Your task to perform on an android device: toggle airplane mode Image 0: 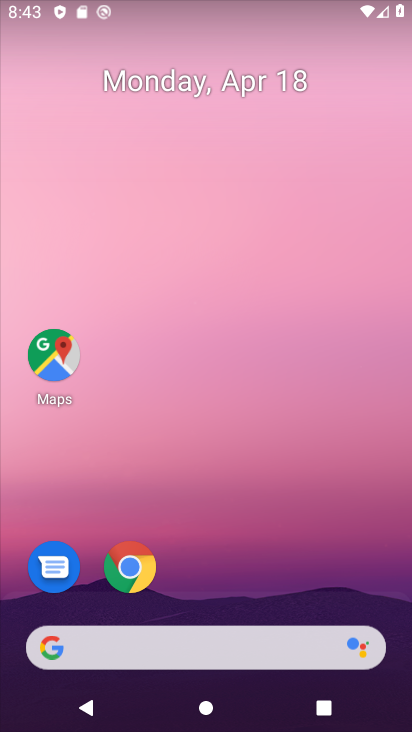
Step 0: drag from (210, 382) to (221, 47)
Your task to perform on an android device: toggle airplane mode Image 1: 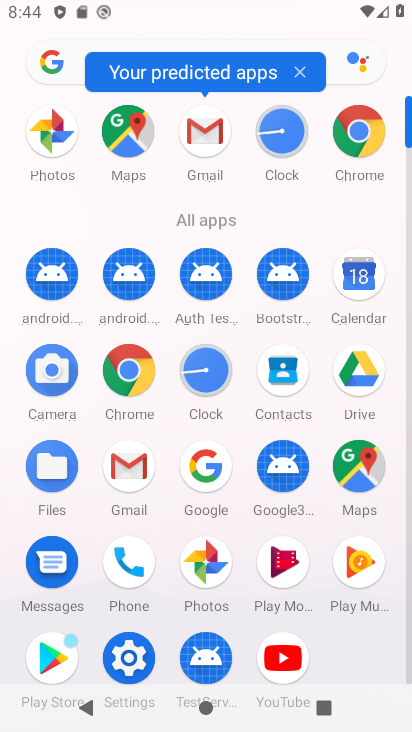
Step 1: click (123, 659)
Your task to perform on an android device: toggle airplane mode Image 2: 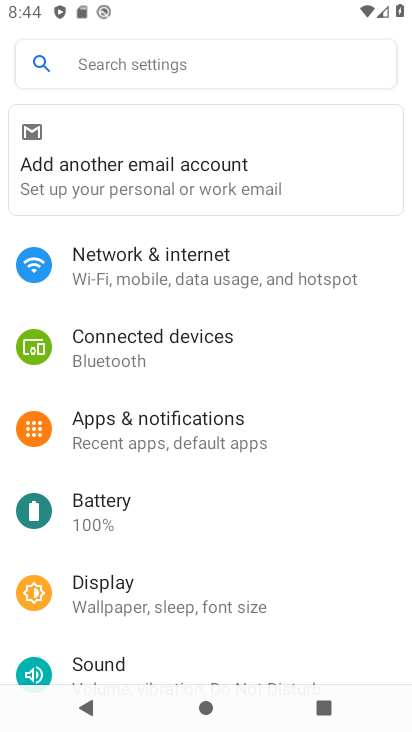
Step 2: click (192, 265)
Your task to perform on an android device: toggle airplane mode Image 3: 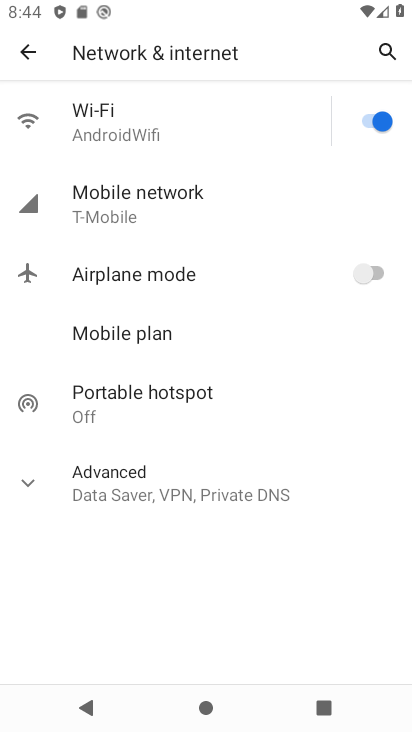
Step 3: click (377, 272)
Your task to perform on an android device: toggle airplane mode Image 4: 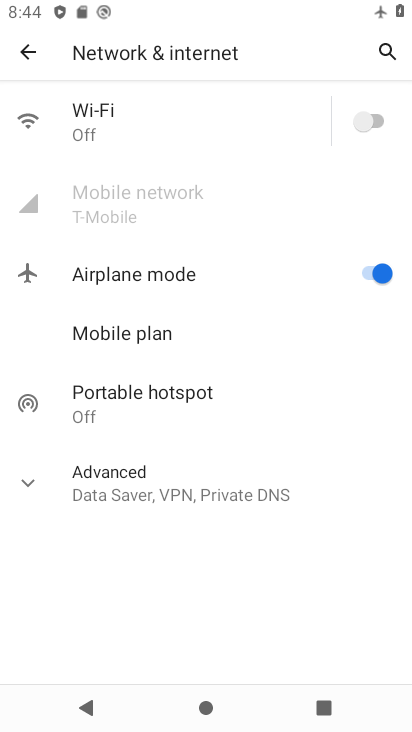
Step 4: click (377, 272)
Your task to perform on an android device: toggle airplane mode Image 5: 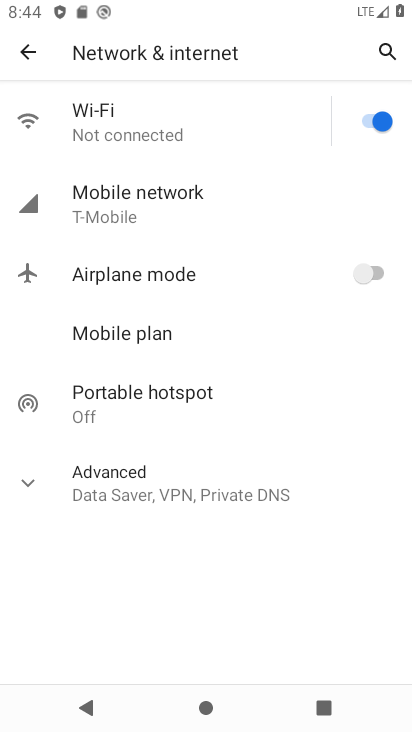
Step 5: task complete